Your task to perform on an android device: delete location history Image 0: 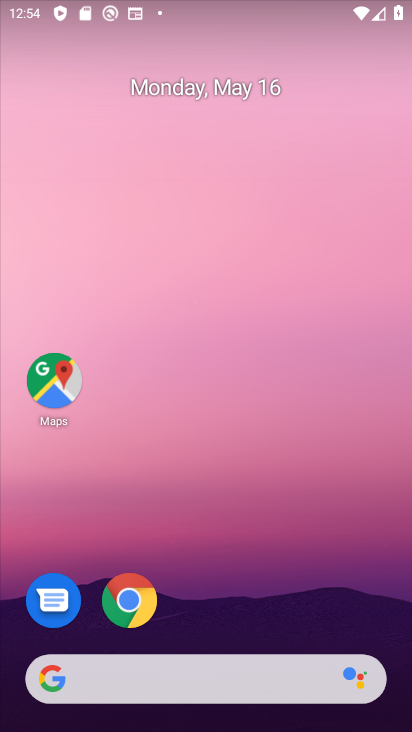
Step 0: drag from (372, 521) to (355, 163)
Your task to perform on an android device: delete location history Image 1: 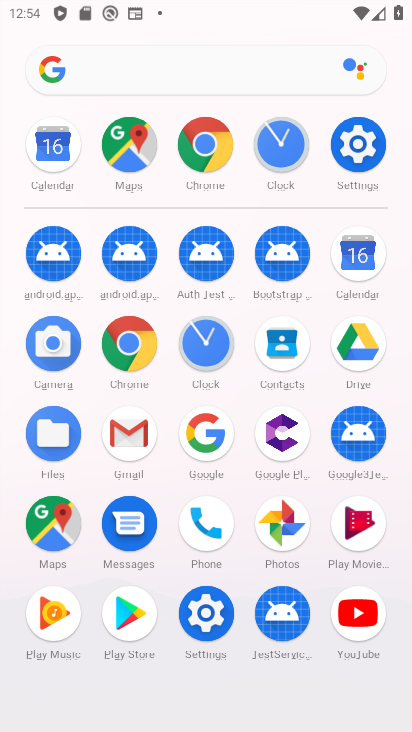
Step 1: click (135, 149)
Your task to perform on an android device: delete location history Image 2: 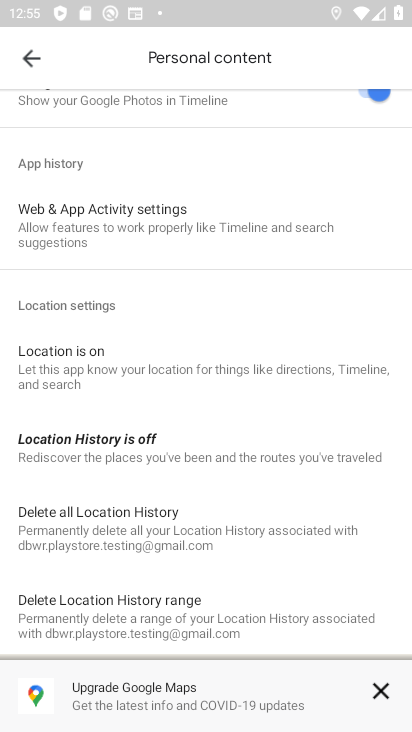
Step 2: click (193, 525)
Your task to perform on an android device: delete location history Image 3: 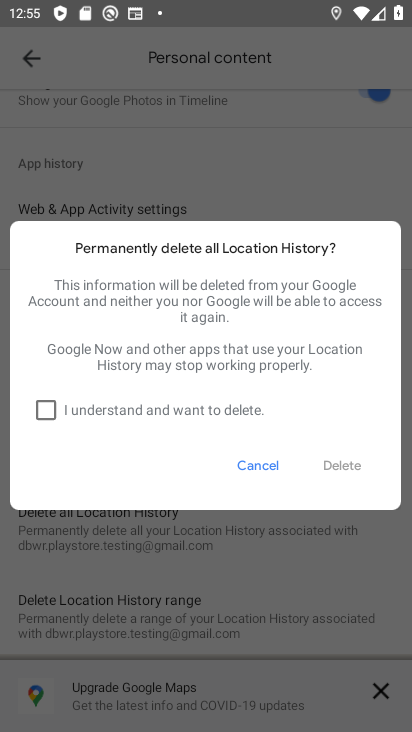
Step 3: click (26, 408)
Your task to perform on an android device: delete location history Image 4: 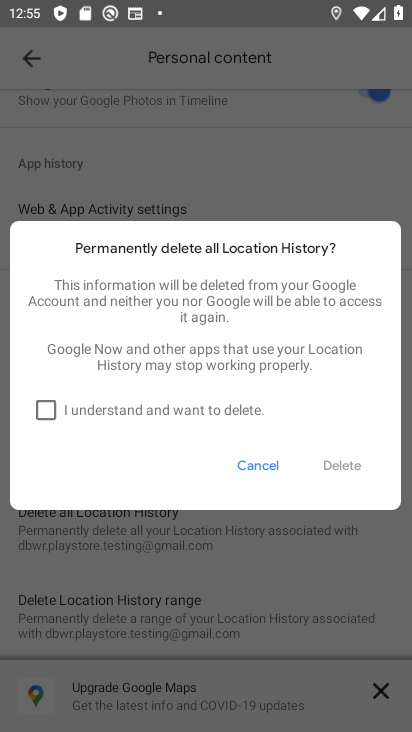
Step 4: click (54, 406)
Your task to perform on an android device: delete location history Image 5: 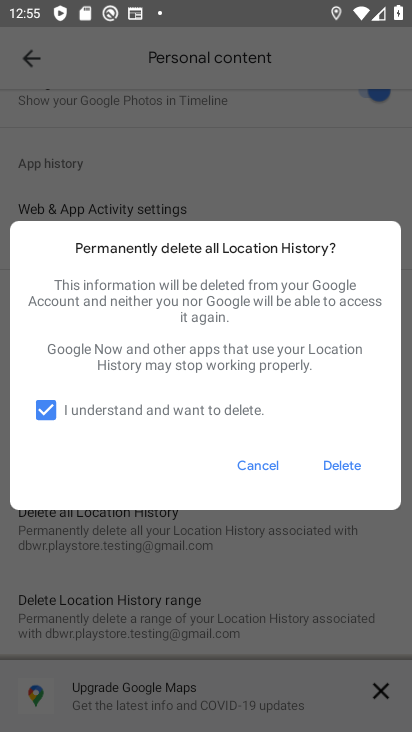
Step 5: click (350, 459)
Your task to perform on an android device: delete location history Image 6: 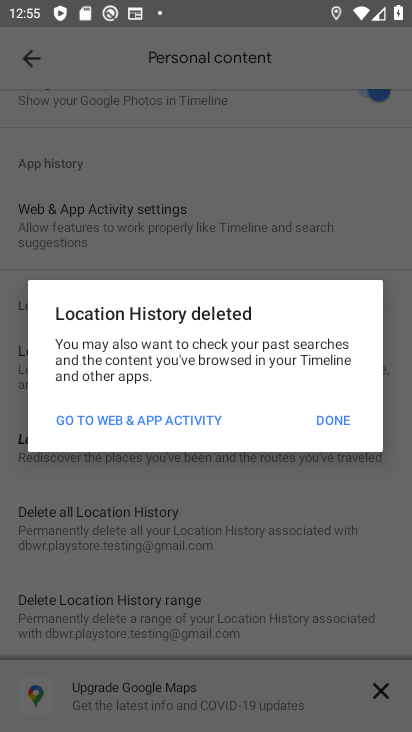
Step 6: click (345, 429)
Your task to perform on an android device: delete location history Image 7: 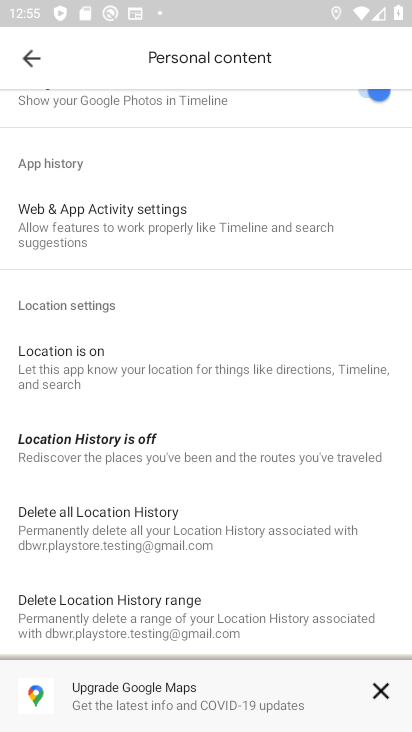
Step 7: task complete